Your task to perform on an android device: change the clock display to show seconds Image 0: 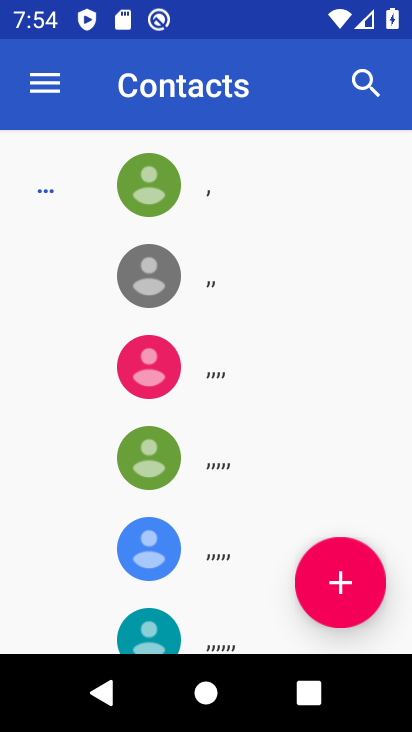
Step 0: press back button
Your task to perform on an android device: change the clock display to show seconds Image 1: 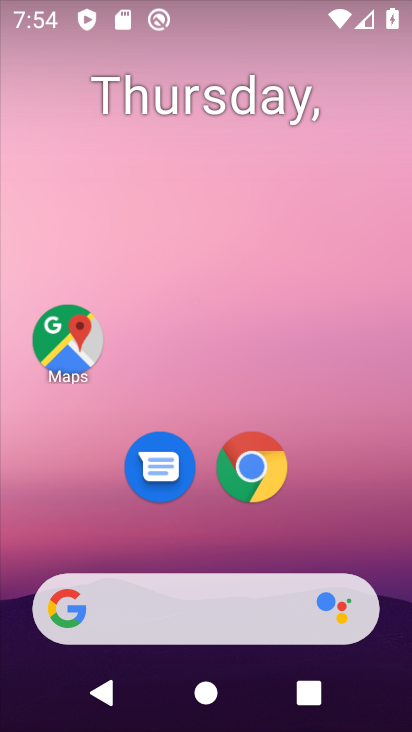
Step 1: drag from (177, 578) to (272, 123)
Your task to perform on an android device: change the clock display to show seconds Image 2: 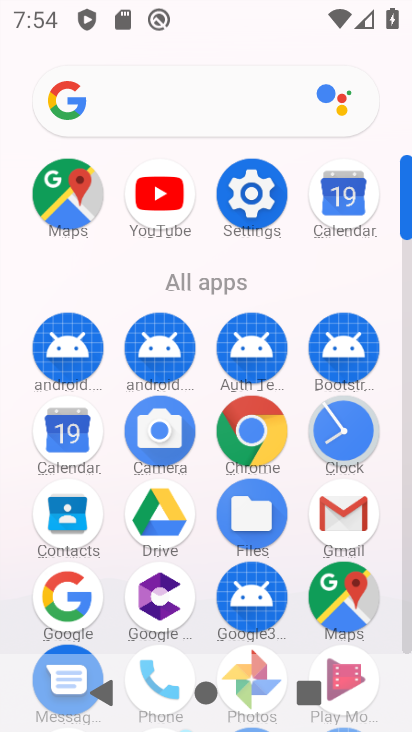
Step 2: click (354, 434)
Your task to perform on an android device: change the clock display to show seconds Image 3: 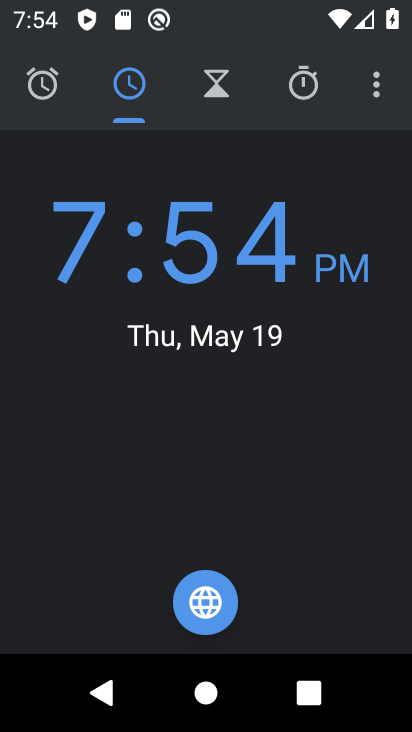
Step 3: click (369, 84)
Your task to perform on an android device: change the clock display to show seconds Image 4: 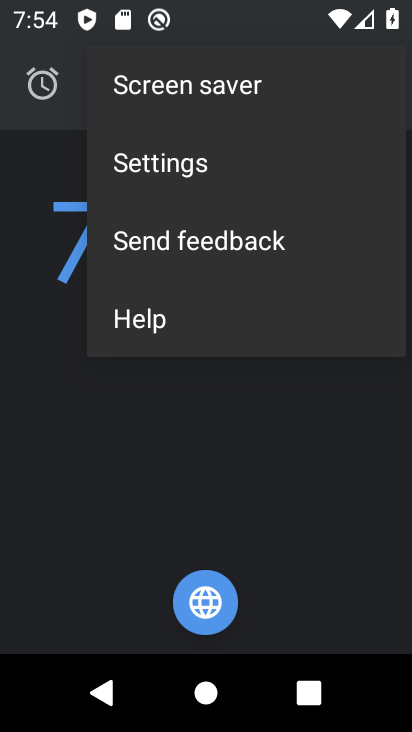
Step 4: click (209, 166)
Your task to perform on an android device: change the clock display to show seconds Image 5: 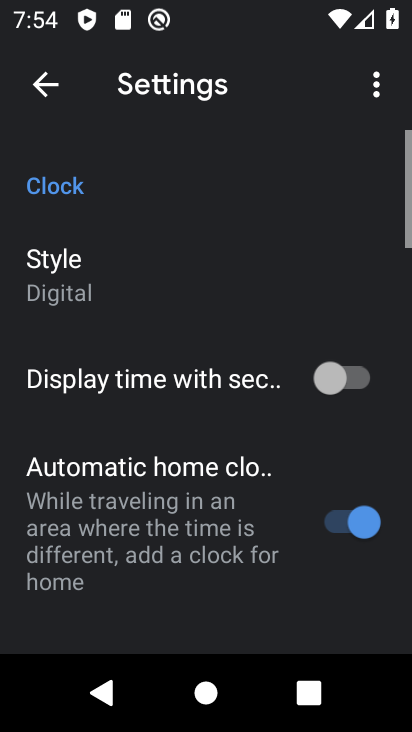
Step 5: click (73, 283)
Your task to perform on an android device: change the clock display to show seconds Image 6: 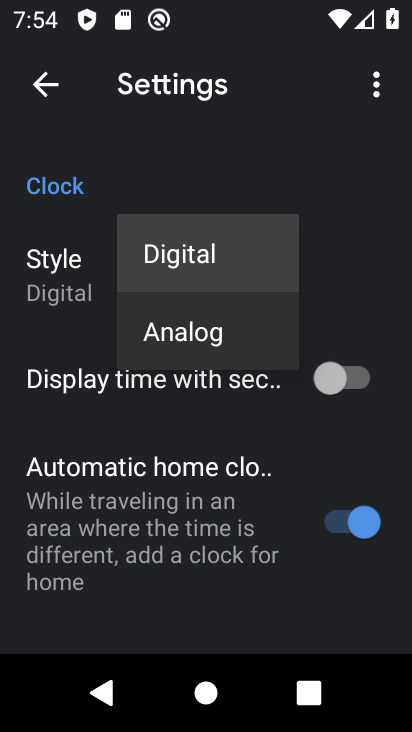
Step 6: click (346, 391)
Your task to perform on an android device: change the clock display to show seconds Image 7: 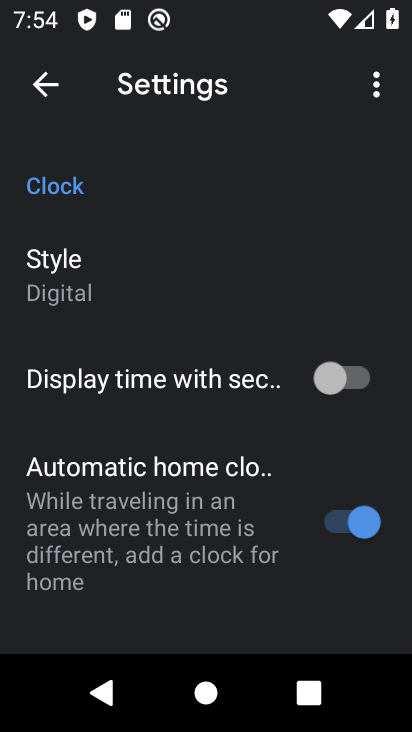
Step 7: click (344, 382)
Your task to perform on an android device: change the clock display to show seconds Image 8: 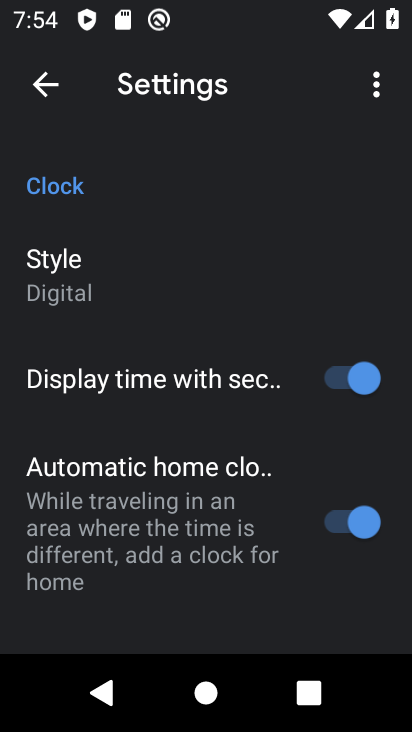
Step 8: task complete